Your task to perform on an android device: Open wifi settings Image 0: 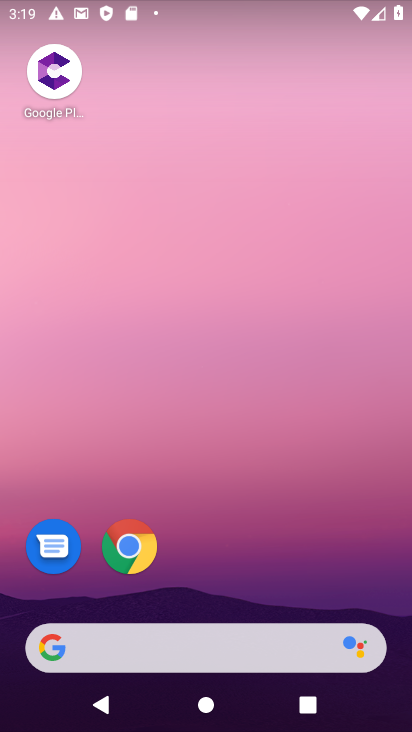
Step 0: drag from (333, 590) to (347, 104)
Your task to perform on an android device: Open wifi settings Image 1: 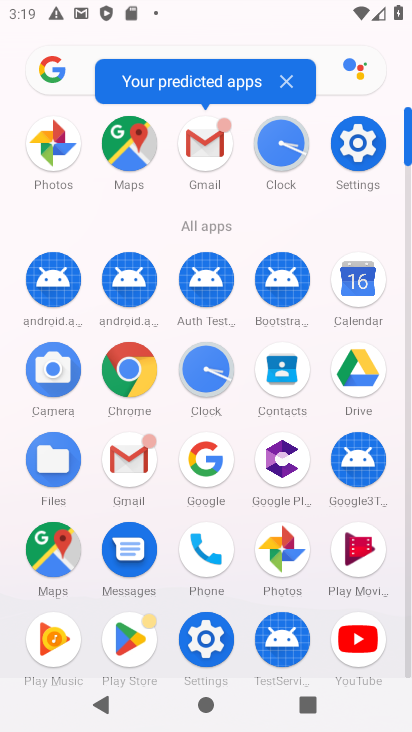
Step 1: click (354, 149)
Your task to perform on an android device: Open wifi settings Image 2: 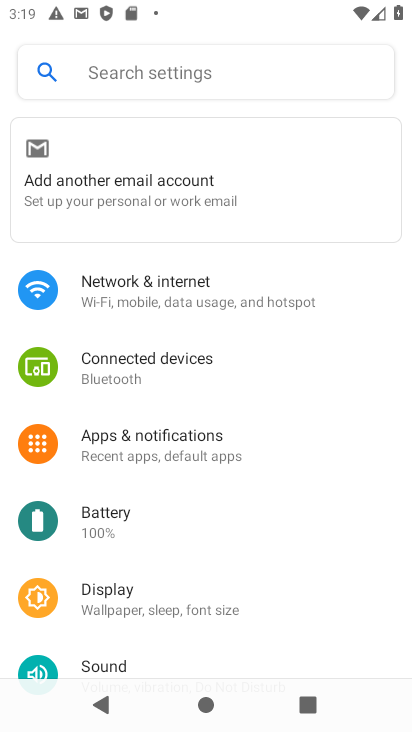
Step 2: drag from (333, 499) to (331, 366)
Your task to perform on an android device: Open wifi settings Image 3: 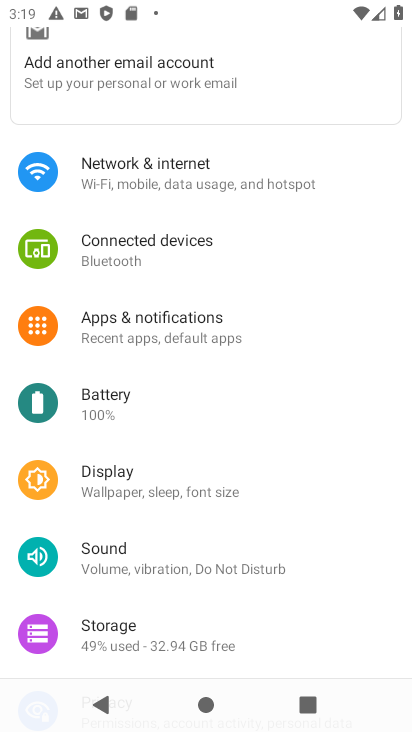
Step 3: drag from (328, 529) to (342, 395)
Your task to perform on an android device: Open wifi settings Image 4: 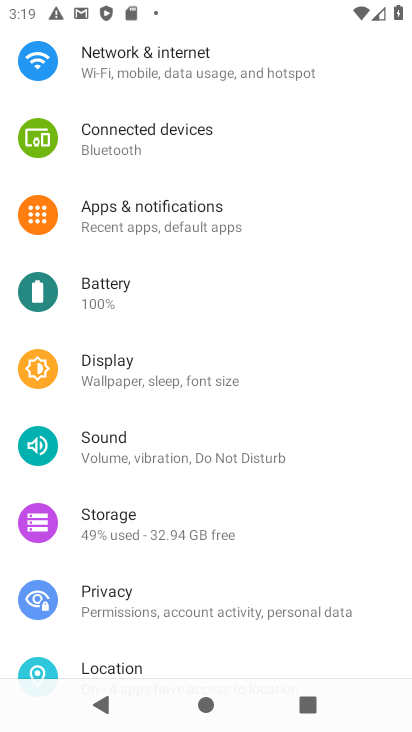
Step 4: drag from (335, 508) to (344, 325)
Your task to perform on an android device: Open wifi settings Image 5: 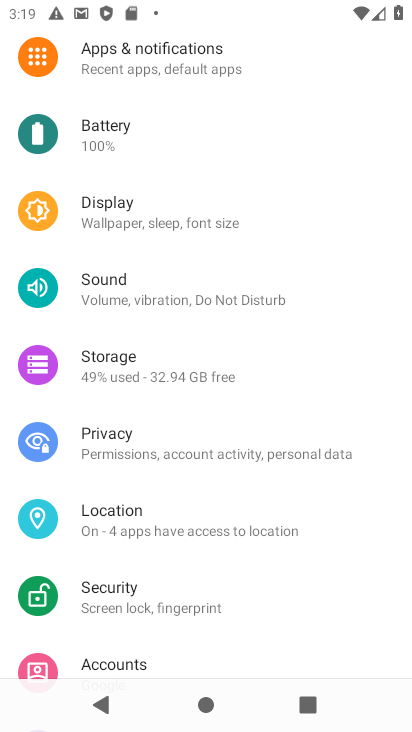
Step 5: drag from (356, 232) to (355, 402)
Your task to perform on an android device: Open wifi settings Image 6: 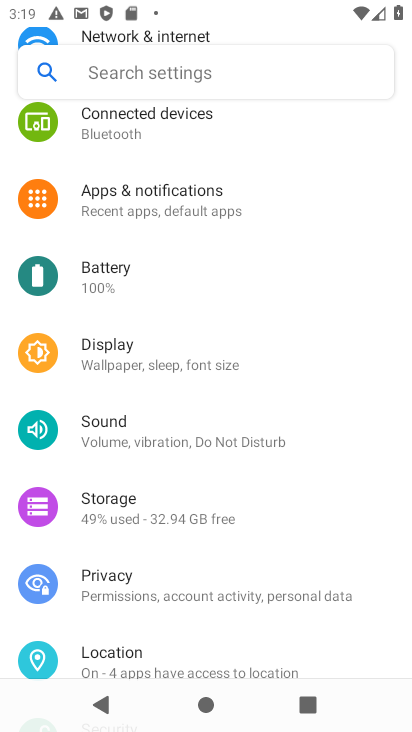
Step 6: drag from (357, 173) to (348, 350)
Your task to perform on an android device: Open wifi settings Image 7: 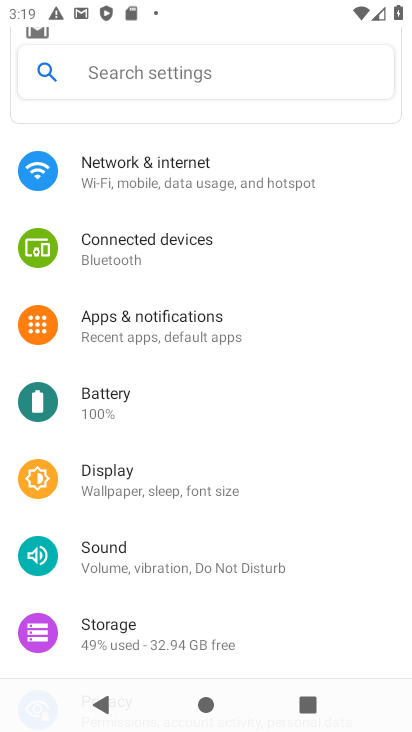
Step 7: drag from (365, 184) to (346, 328)
Your task to perform on an android device: Open wifi settings Image 8: 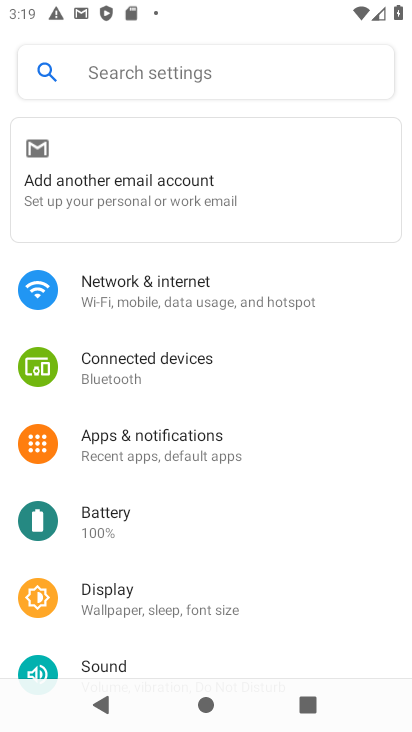
Step 8: click (236, 297)
Your task to perform on an android device: Open wifi settings Image 9: 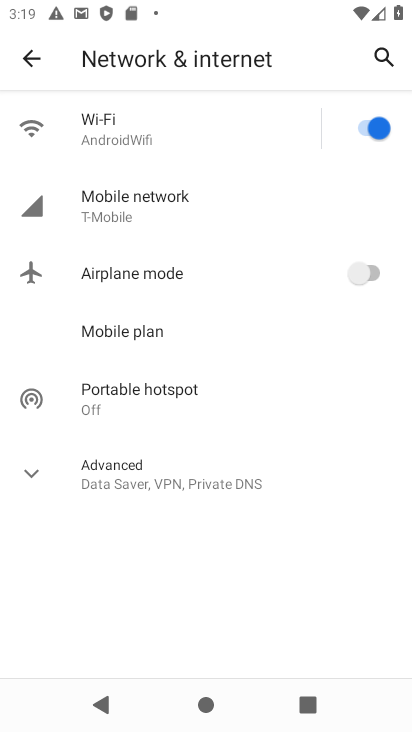
Step 9: click (116, 135)
Your task to perform on an android device: Open wifi settings Image 10: 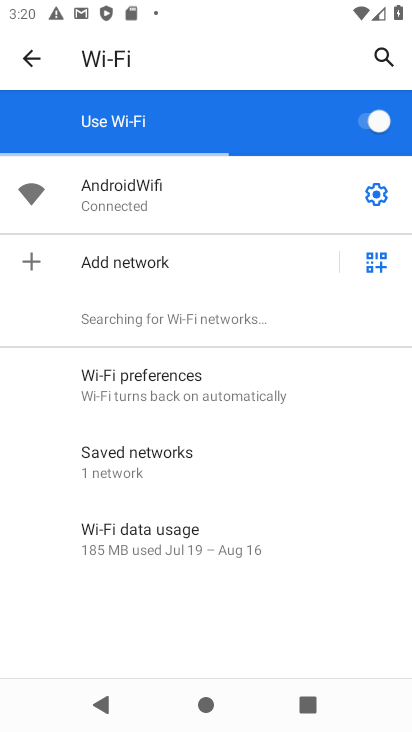
Step 10: task complete